Your task to perform on an android device: open a new tab in the chrome app Image 0: 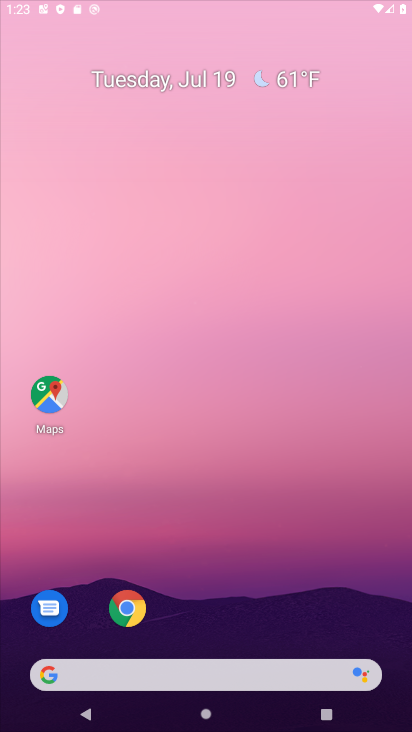
Step 0: click (239, 120)
Your task to perform on an android device: open a new tab in the chrome app Image 1: 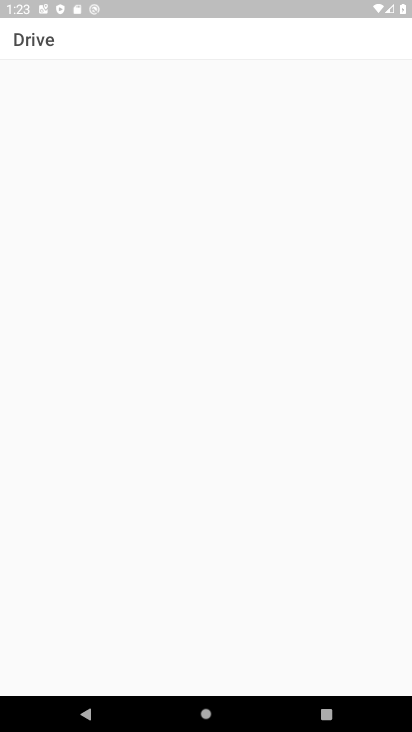
Step 1: press home button
Your task to perform on an android device: open a new tab in the chrome app Image 2: 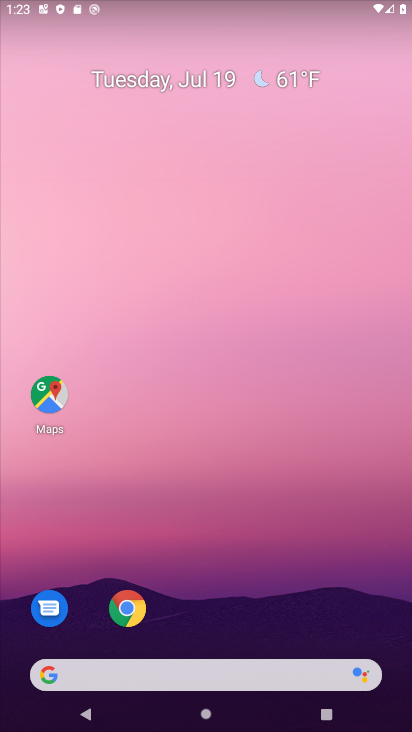
Step 2: drag from (276, 658) to (279, 88)
Your task to perform on an android device: open a new tab in the chrome app Image 3: 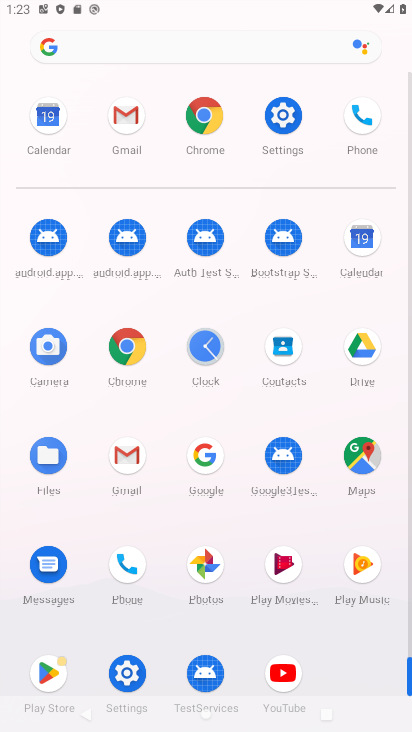
Step 3: click (222, 117)
Your task to perform on an android device: open a new tab in the chrome app Image 4: 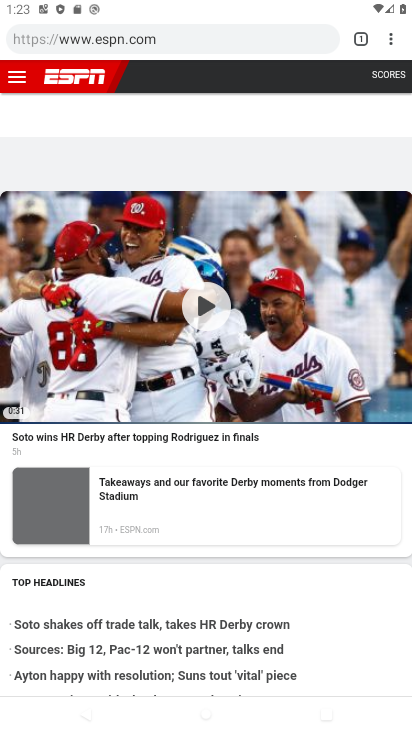
Step 4: task complete